Your task to perform on an android device: allow cookies in the chrome app Image 0: 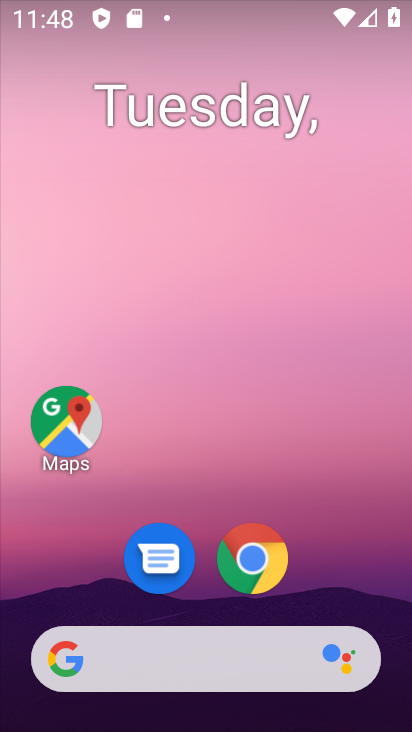
Step 0: drag from (211, 444) to (171, 238)
Your task to perform on an android device: allow cookies in the chrome app Image 1: 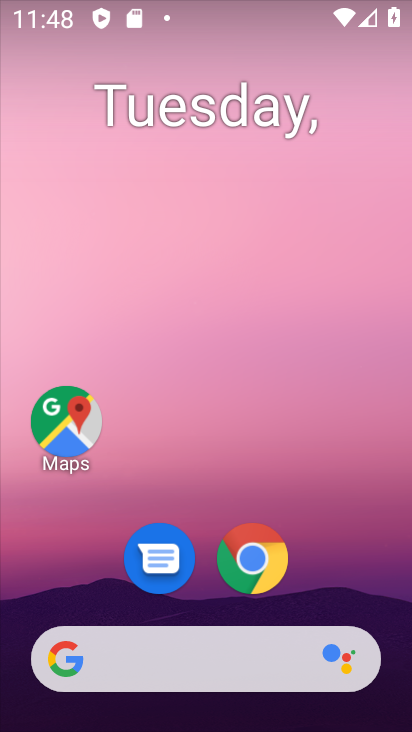
Step 1: click (253, 554)
Your task to perform on an android device: allow cookies in the chrome app Image 2: 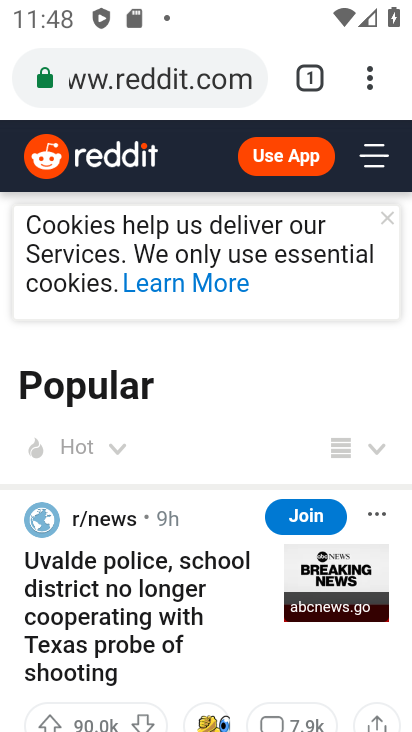
Step 2: click (368, 77)
Your task to perform on an android device: allow cookies in the chrome app Image 3: 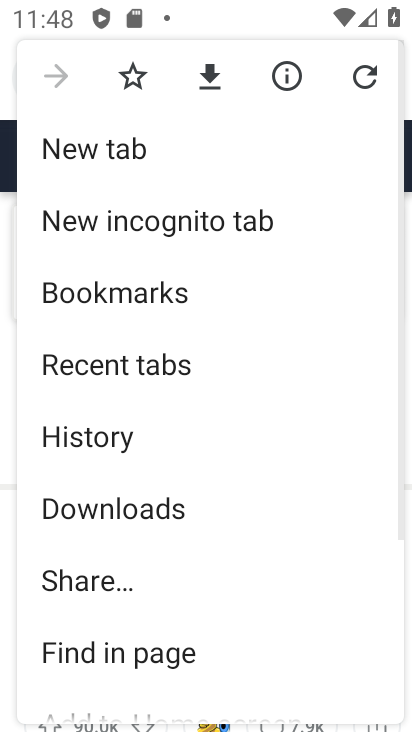
Step 3: drag from (146, 526) to (188, 271)
Your task to perform on an android device: allow cookies in the chrome app Image 4: 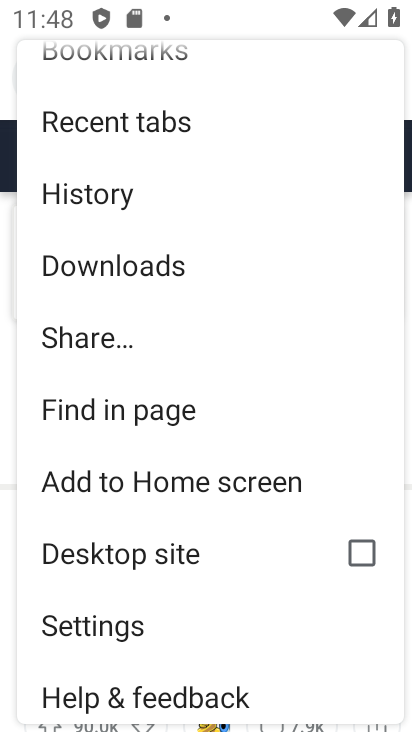
Step 4: click (127, 631)
Your task to perform on an android device: allow cookies in the chrome app Image 5: 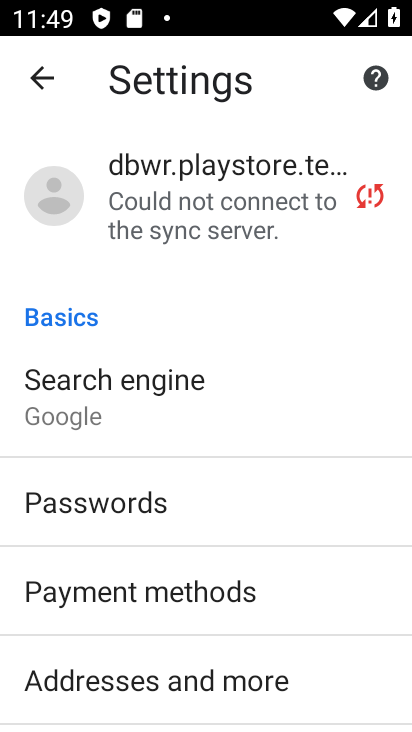
Step 5: drag from (244, 573) to (298, 297)
Your task to perform on an android device: allow cookies in the chrome app Image 6: 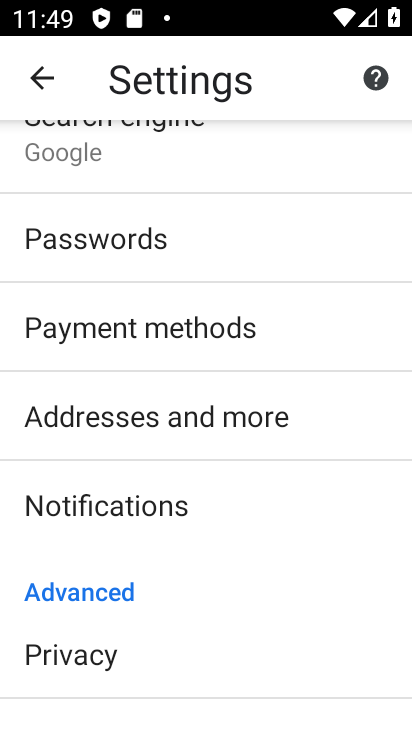
Step 6: drag from (182, 532) to (219, 192)
Your task to perform on an android device: allow cookies in the chrome app Image 7: 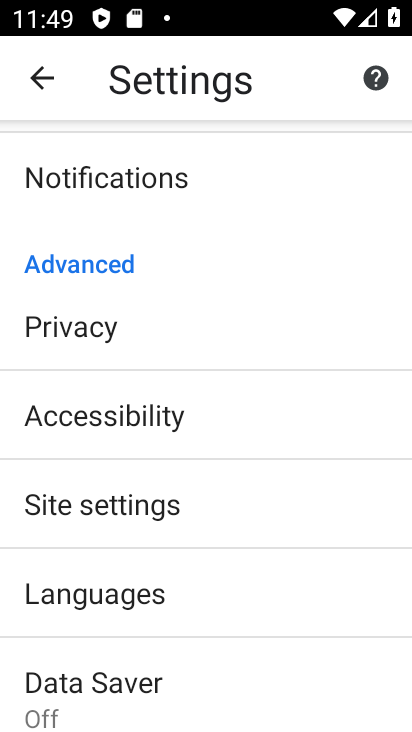
Step 7: click (187, 507)
Your task to perform on an android device: allow cookies in the chrome app Image 8: 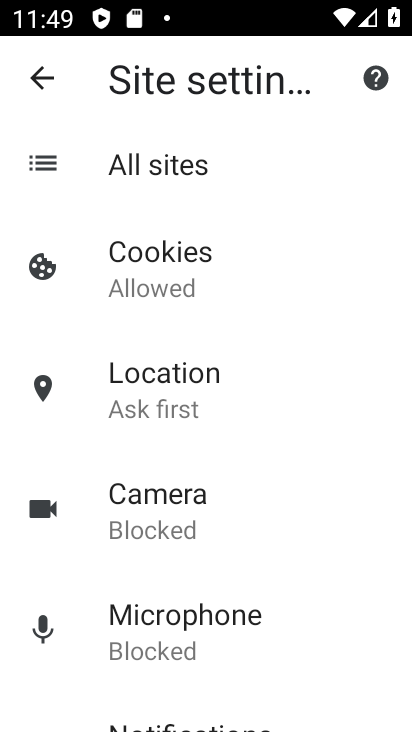
Step 8: click (213, 288)
Your task to perform on an android device: allow cookies in the chrome app Image 9: 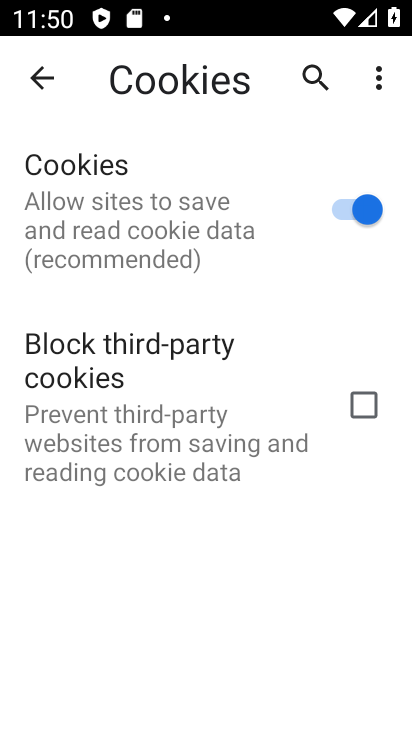
Step 9: task complete